Your task to perform on an android device: Open eBay Image 0: 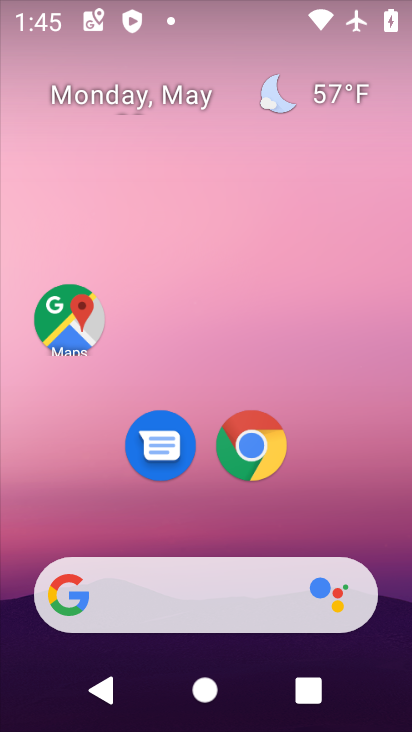
Step 0: drag from (216, 516) to (200, 43)
Your task to perform on an android device: Open eBay Image 1: 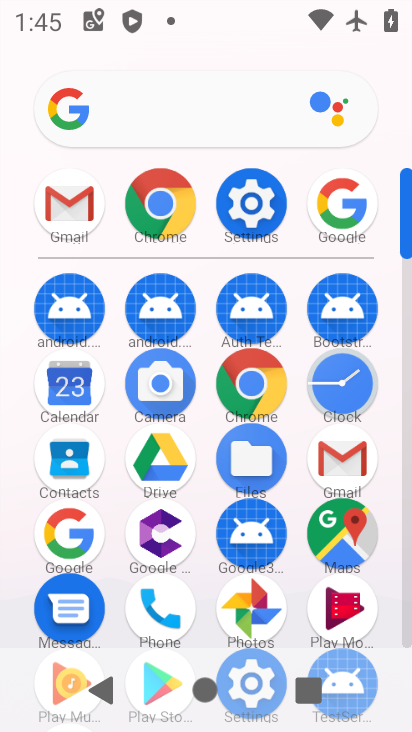
Step 1: click (336, 205)
Your task to perform on an android device: Open eBay Image 2: 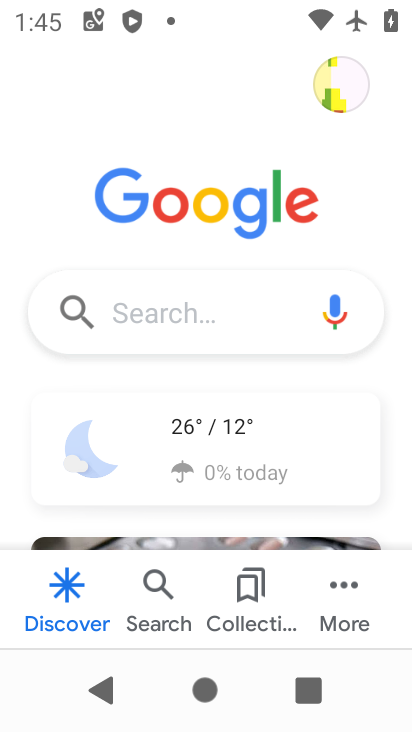
Step 2: click (205, 279)
Your task to perform on an android device: Open eBay Image 3: 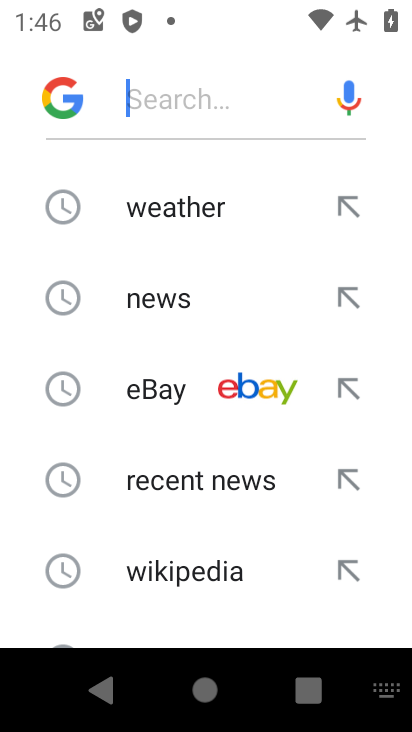
Step 3: click (153, 399)
Your task to perform on an android device: Open eBay Image 4: 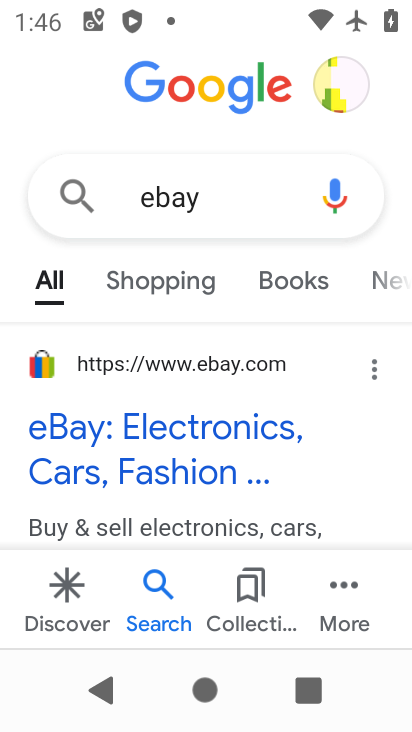
Step 4: click (143, 428)
Your task to perform on an android device: Open eBay Image 5: 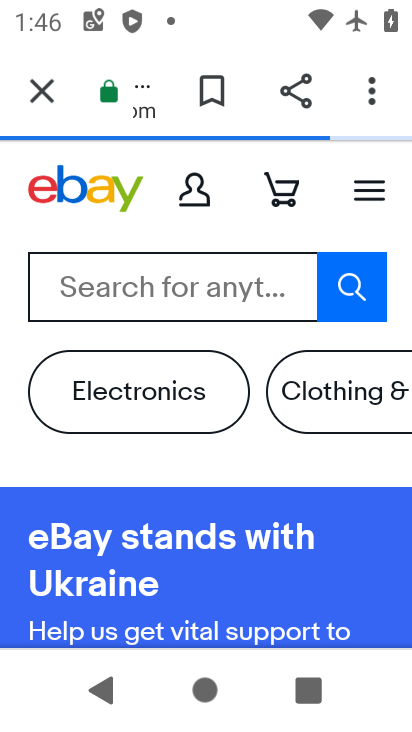
Step 5: task complete